Your task to perform on an android device: change the clock display to analog Image 0: 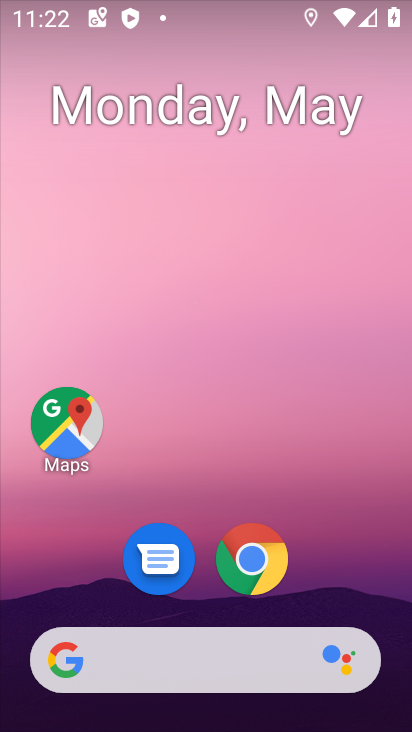
Step 0: drag from (350, 579) to (339, 3)
Your task to perform on an android device: change the clock display to analog Image 1: 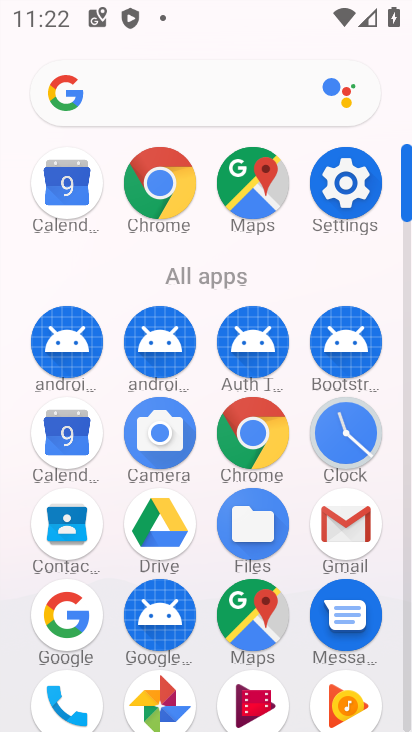
Step 1: click (321, 433)
Your task to perform on an android device: change the clock display to analog Image 2: 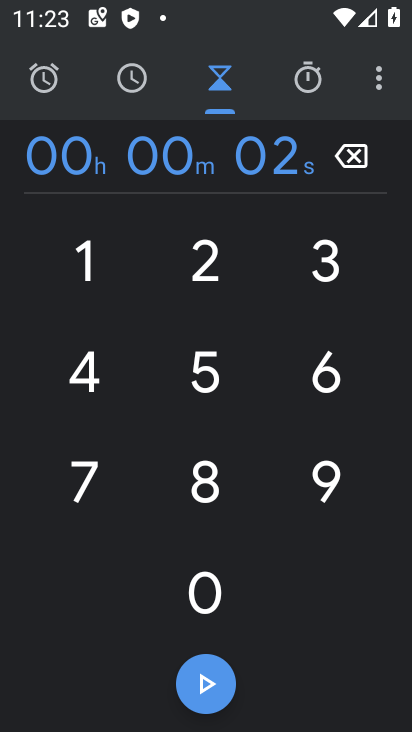
Step 2: drag from (376, 86) to (250, 170)
Your task to perform on an android device: change the clock display to analog Image 3: 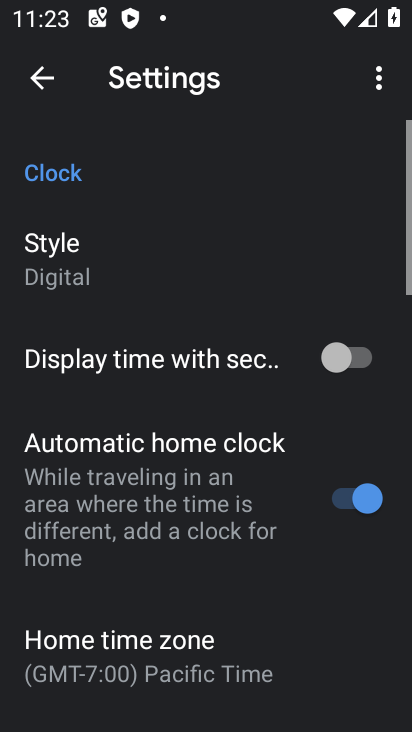
Step 3: click (99, 258)
Your task to perform on an android device: change the clock display to analog Image 4: 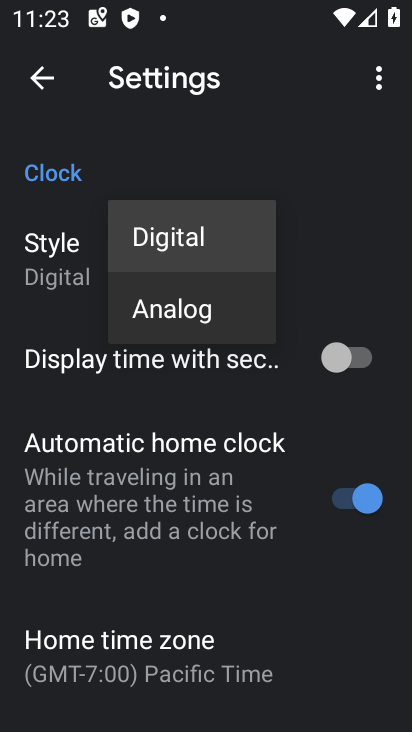
Step 4: click (180, 313)
Your task to perform on an android device: change the clock display to analog Image 5: 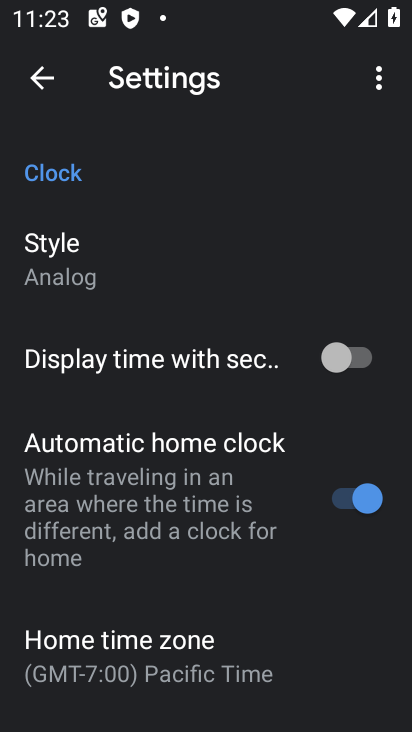
Step 5: task complete